Your task to perform on an android device: What is the recent news? Image 0: 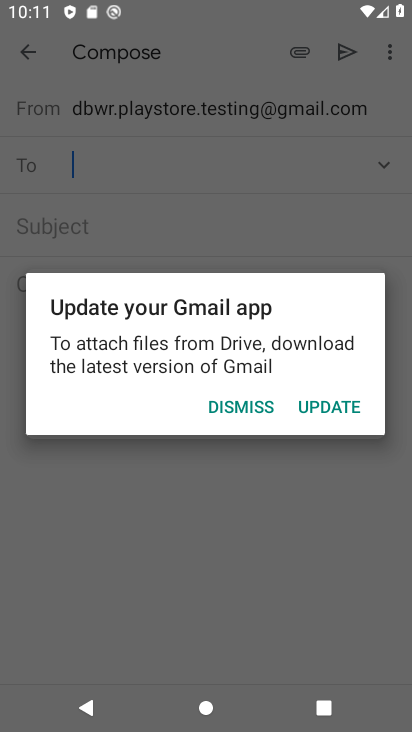
Step 0: press home button
Your task to perform on an android device: What is the recent news? Image 1: 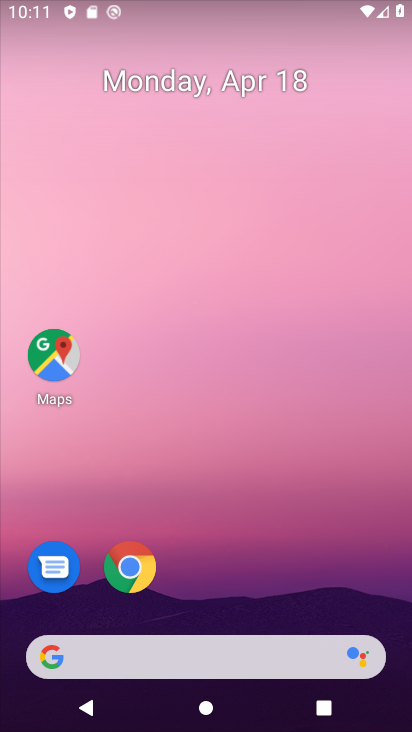
Step 1: drag from (208, 597) to (242, 122)
Your task to perform on an android device: What is the recent news? Image 2: 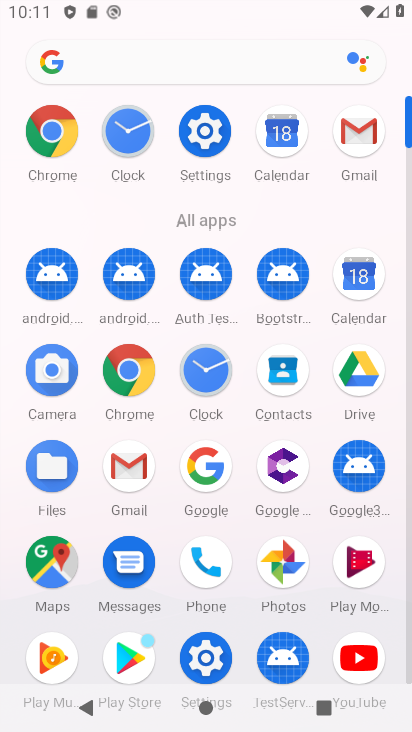
Step 2: click (55, 135)
Your task to perform on an android device: What is the recent news? Image 3: 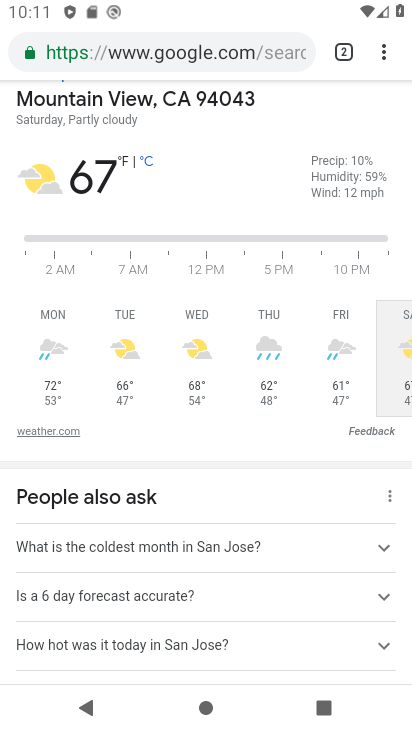
Step 3: click (346, 48)
Your task to perform on an android device: What is the recent news? Image 4: 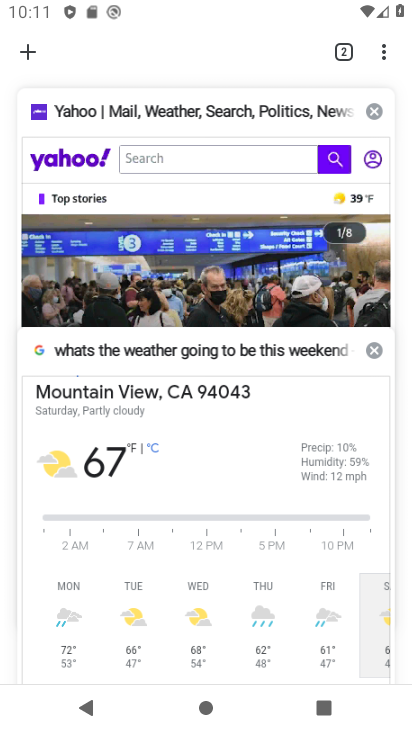
Step 4: click (24, 51)
Your task to perform on an android device: What is the recent news? Image 5: 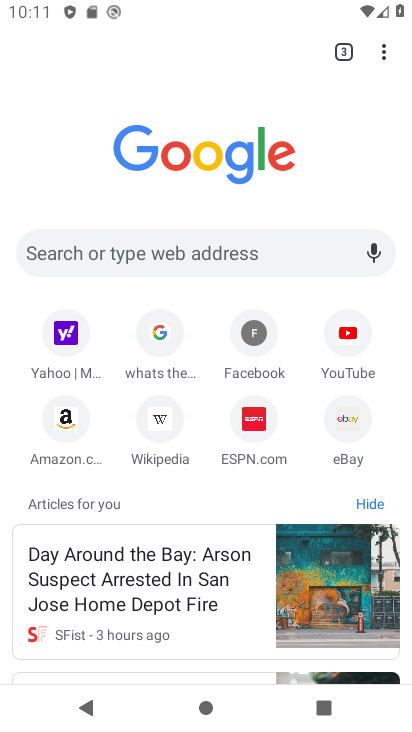
Step 5: click (145, 230)
Your task to perform on an android device: What is the recent news? Image 6: 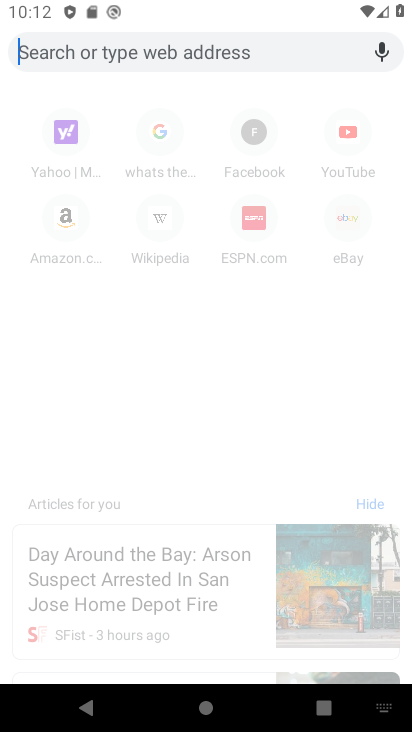
Step 6: type "recent news"
Your task to perform on an android device: What is the recent news? Image 7: 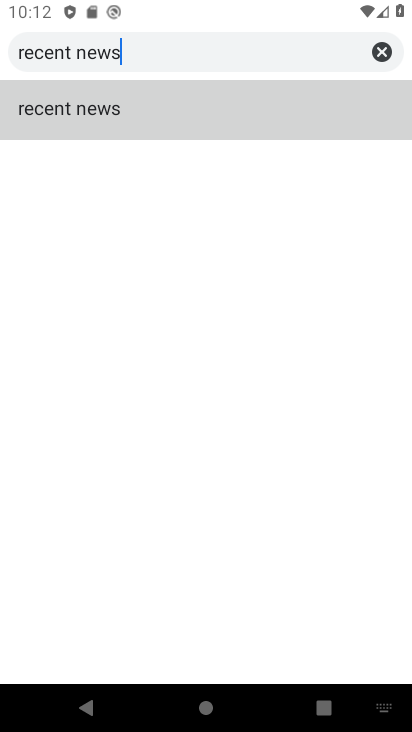
Step 7: click (163, 114)
Your task to perform on an android device: What is the recent news? Image 8: 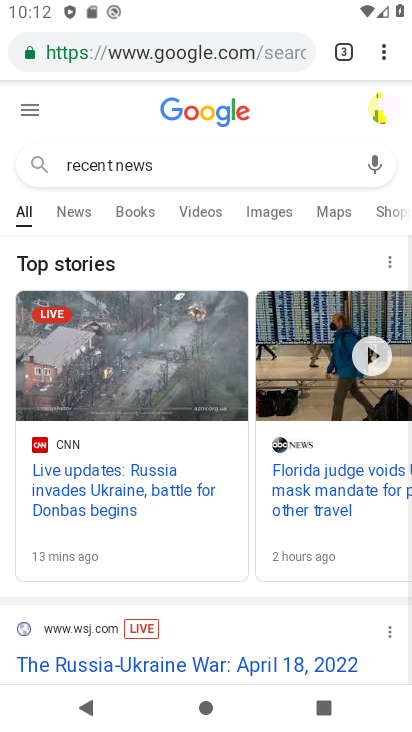
Step 8: click (85, 213)
Your task to perform on an android device: What is the recent news? Image 9: 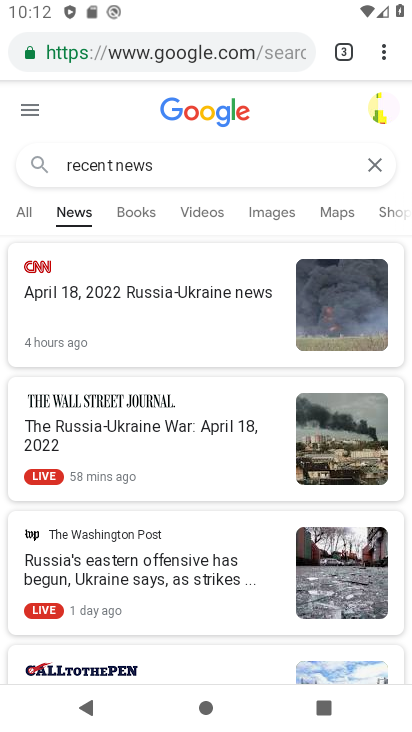
Step 9: task complete